Your task to perform on an android device: uninstall "Truecaller" Image 0: 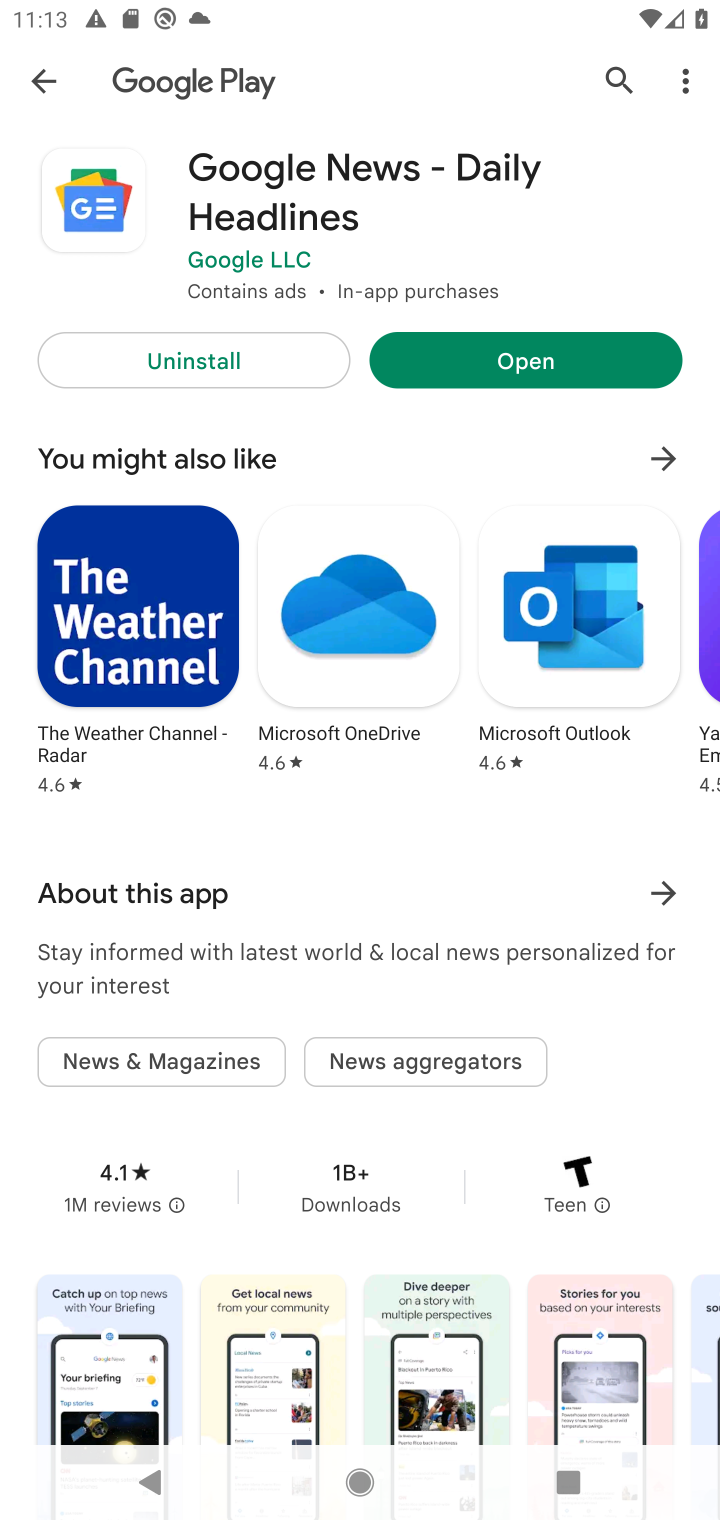
Step 0: press home button
Your task to perform on an android device: uninstall "Truecaller" Image 1: 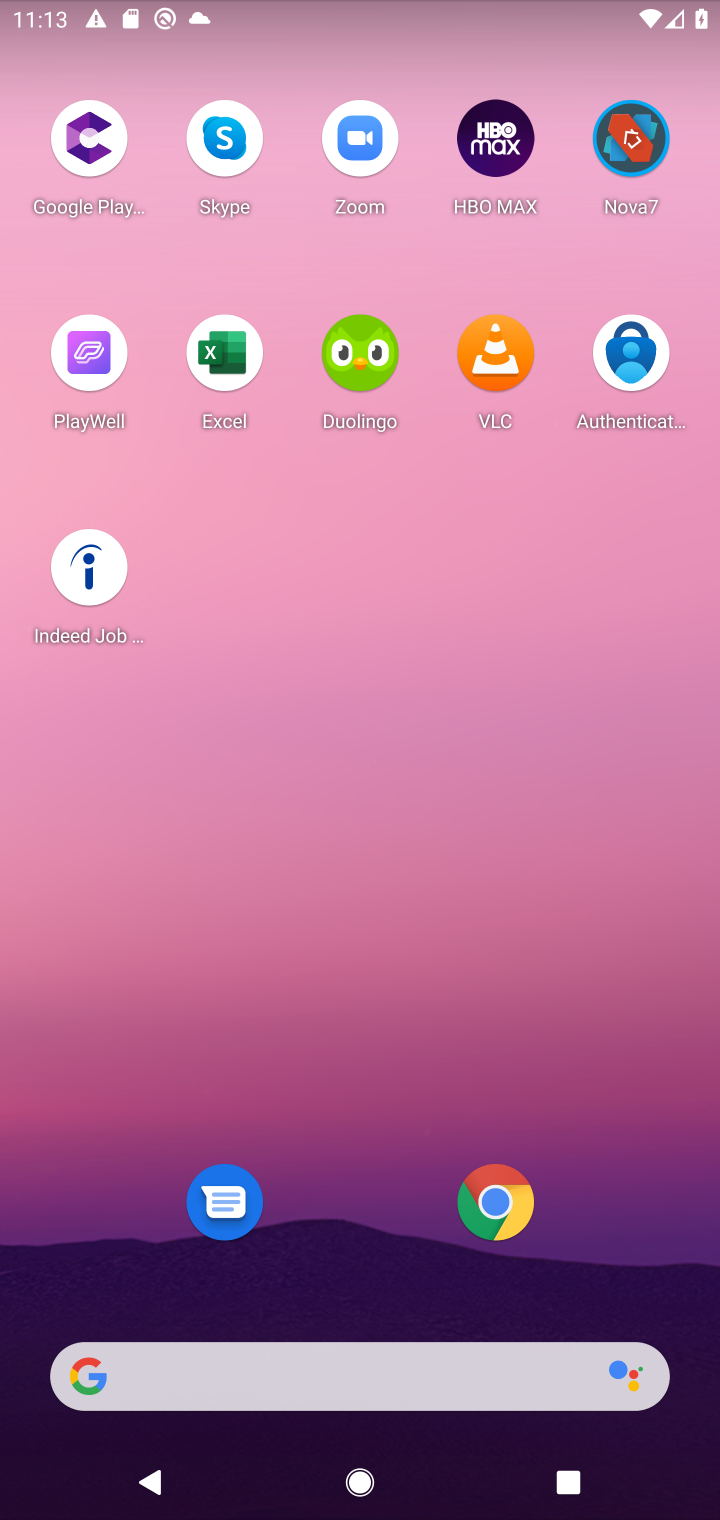
Step 1: click (282, 1359)
Your task to perform on an android device: uninstall "Truecaller" Image 2: 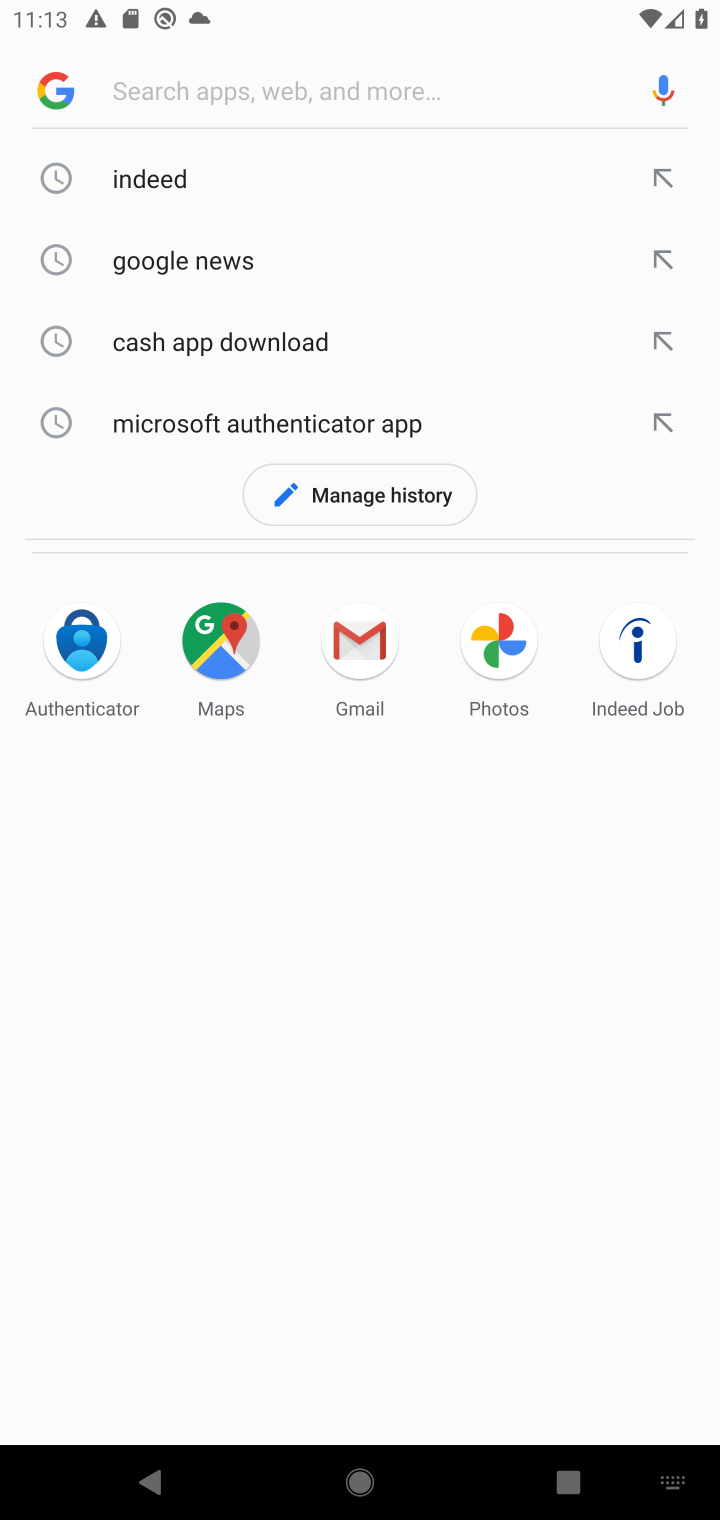
Step 2: type "truecaller"
Your task to perform on an android device: uninstall "Truecaller" Image 3: 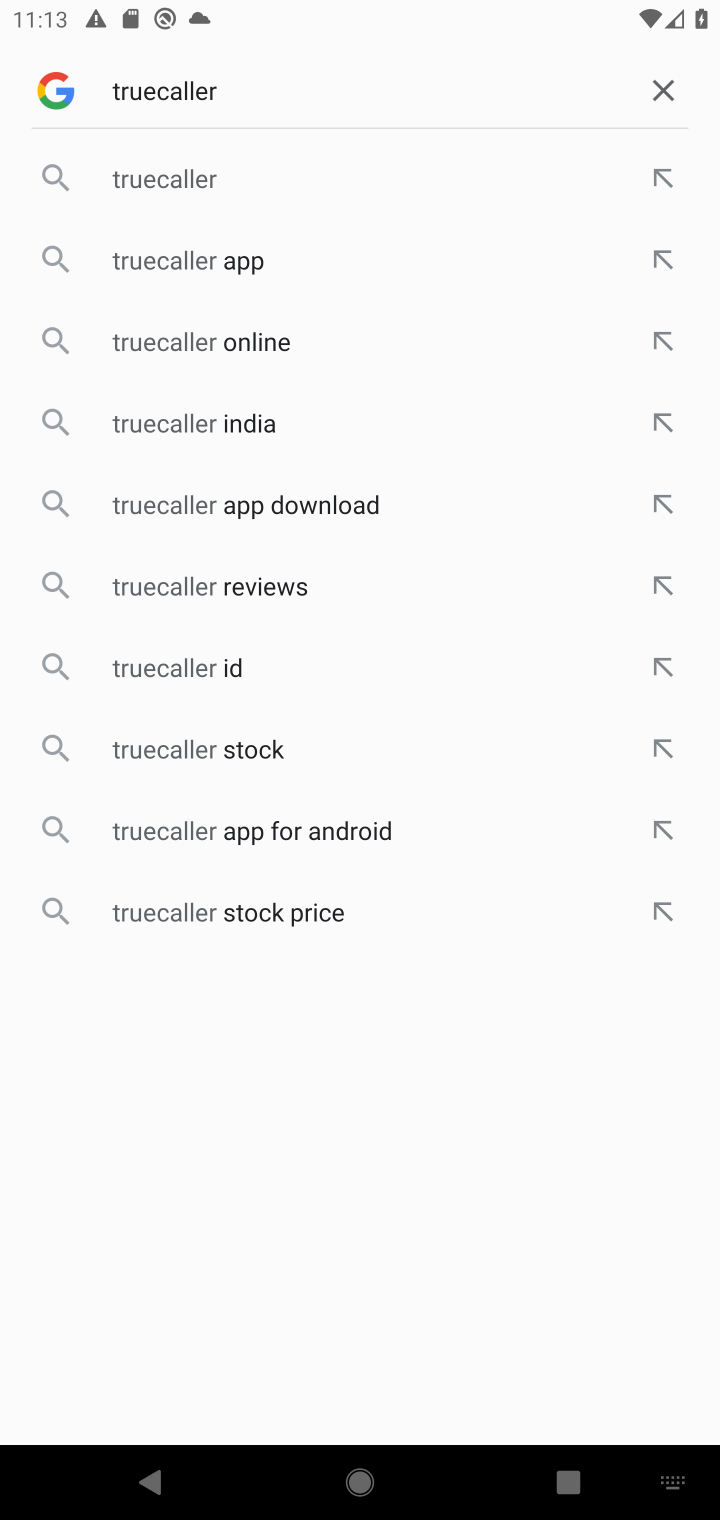
Step 3: click (172, 163)
Your task to perform on an android device: uninstall "Truecaller" Image 4: 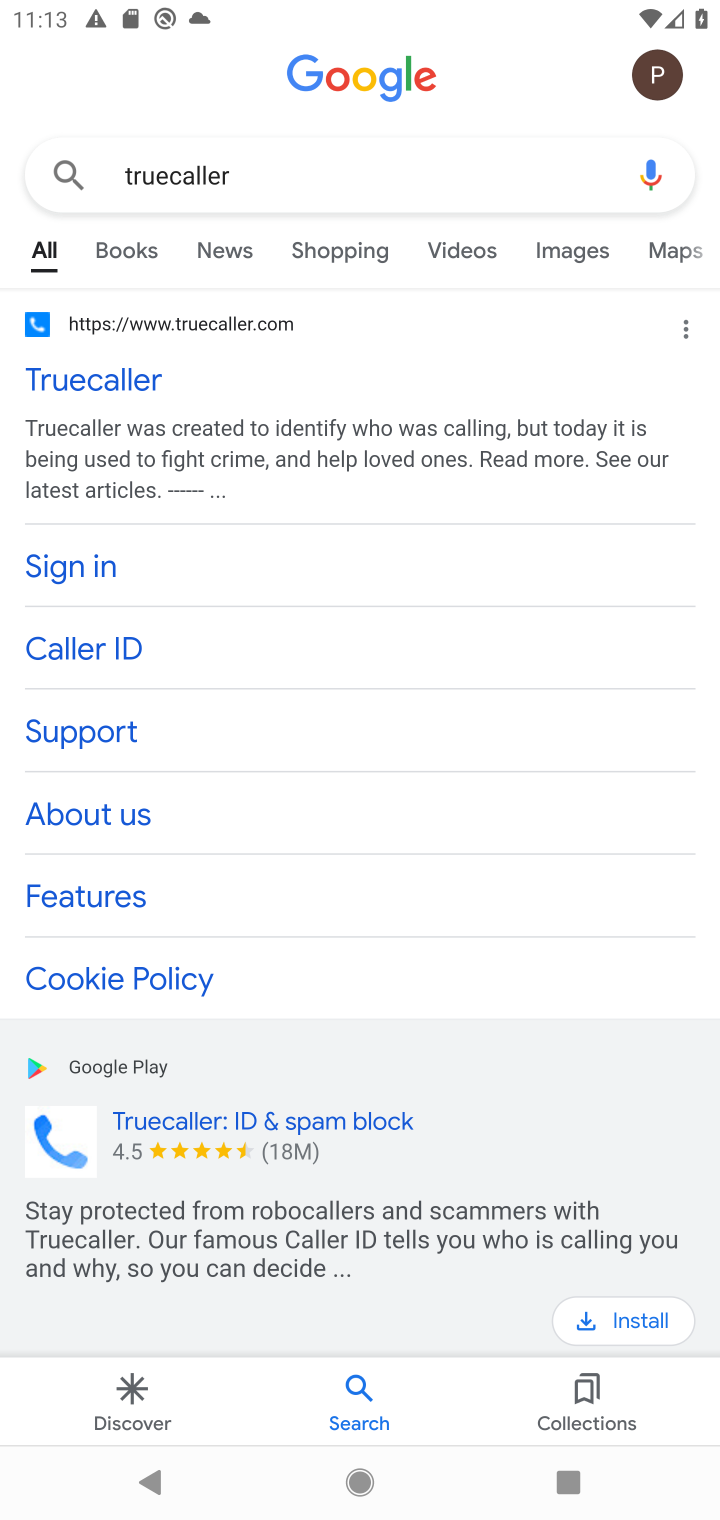
Step 4: click (601, 1320)
Your task to perform on an android device: uninstall "Truecaller" Image 5: 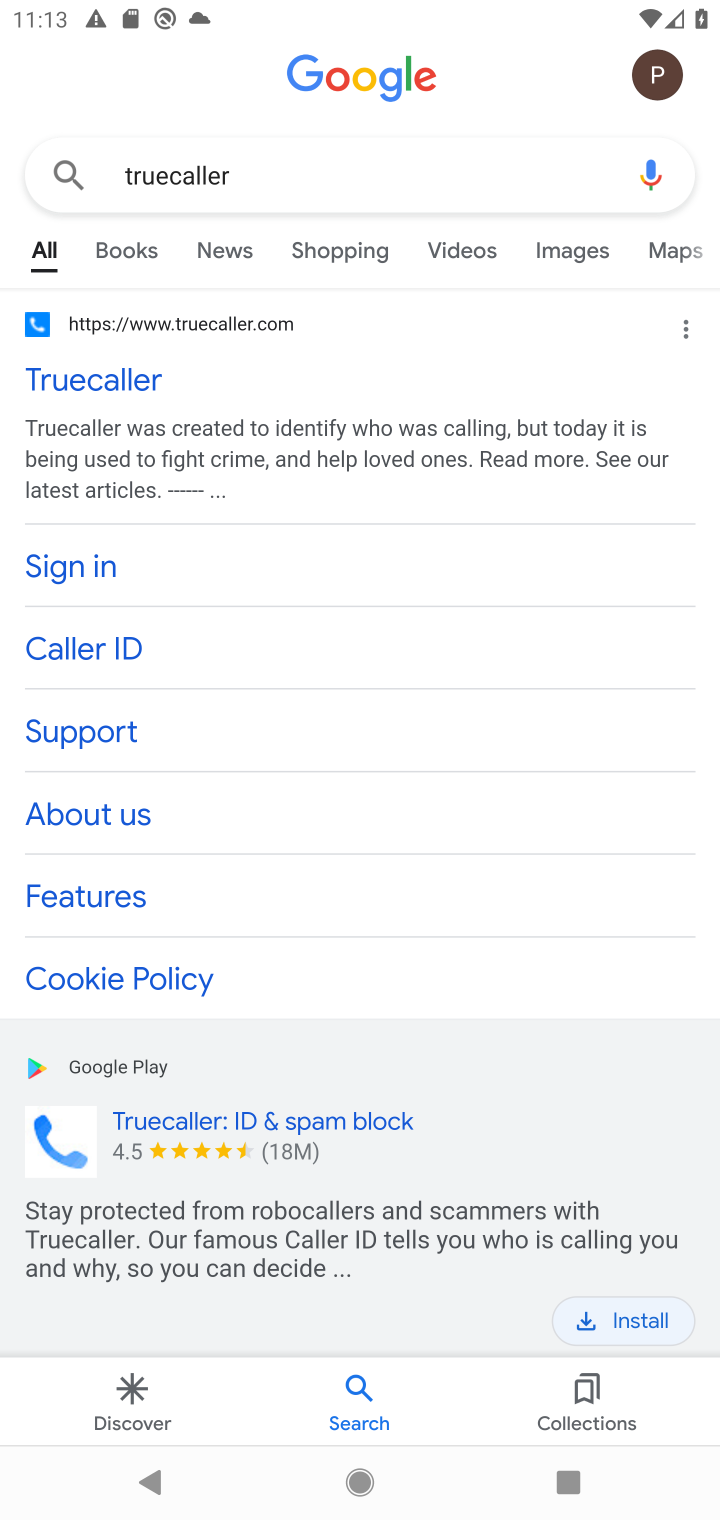
Step 5: task complete